Your task to perform on an android device: Open Wikipedia Image 0: 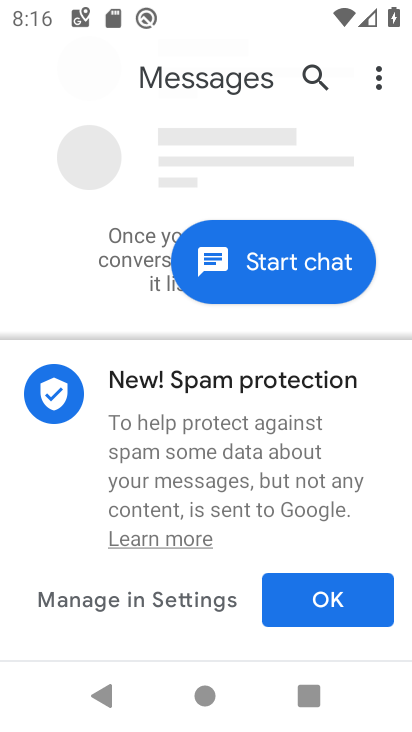
Step 0: press back button
Your task to perform on an android device: Open Wikipedia Image 1: 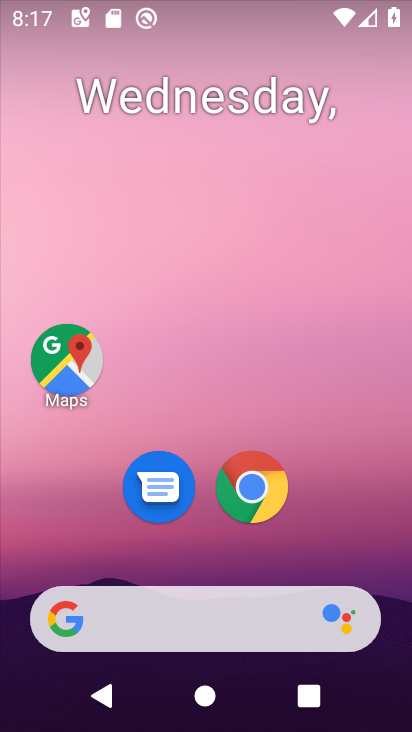
Step 1: click (253, 488)
Your task to perform on an android device: Open Wikipedia Image 2: 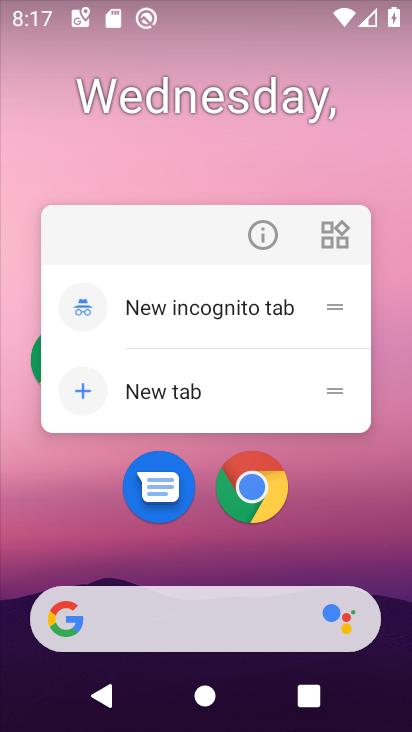
Step 2: click (253, 488)
Your task to perform on an android device: Open Wikipedia Image 3: 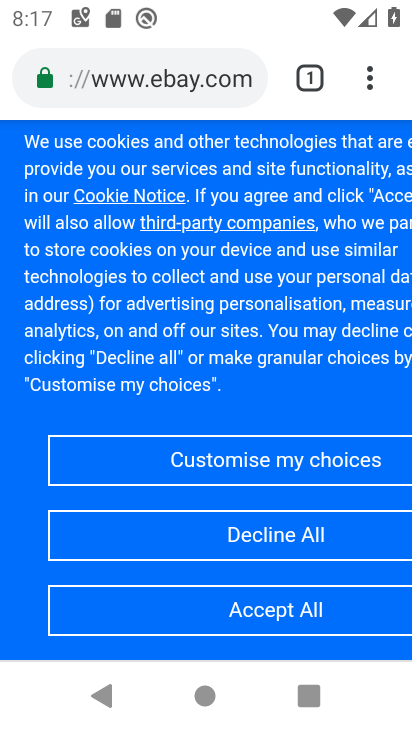
Step 3: click (171, 75)
Your task to perform on an android device: Open Wikipedia Image 4: 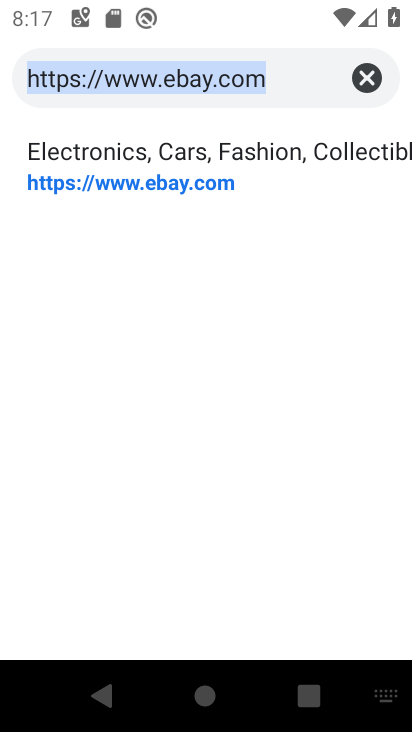
Step 4: click (372, 81)
Your task to perform on an android device: Open Wikipedia Image 5: 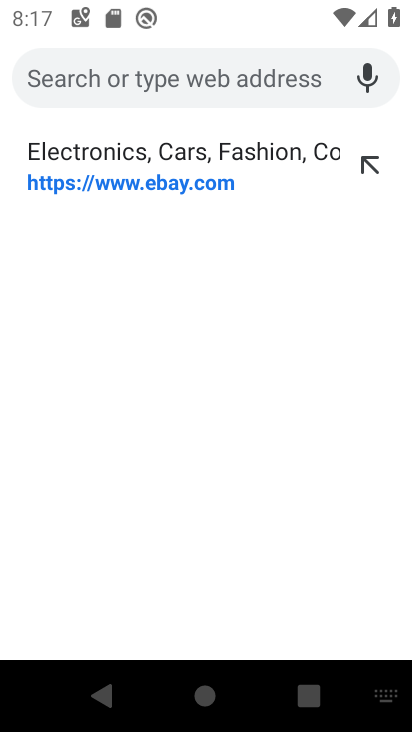
Step 5: type "Wikipedia"
Your task to perform on an android device: Open Wikipedia Image 6: 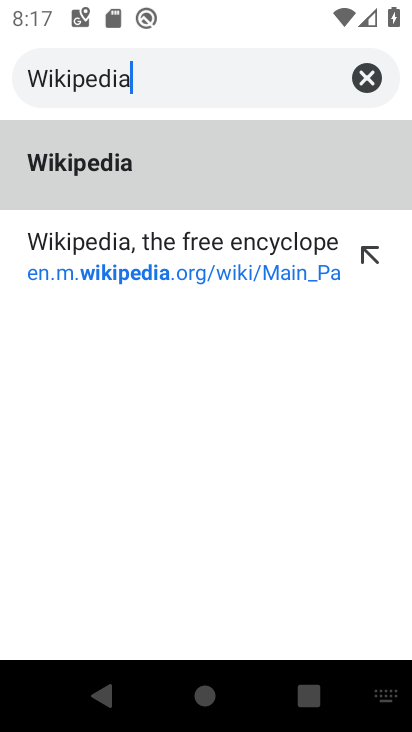
Step 6: type ""
Your task to perform on an android device: Open Wikipedia Image 7: 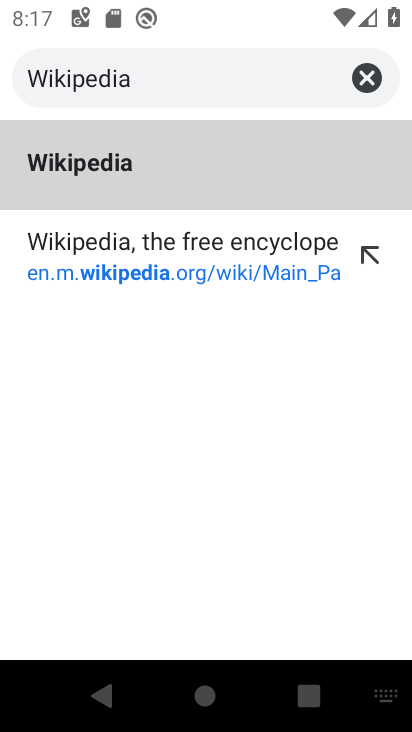
Step 7: click (114, 169)
Your task to perform on an android device: Open Wikipedia Image 8: 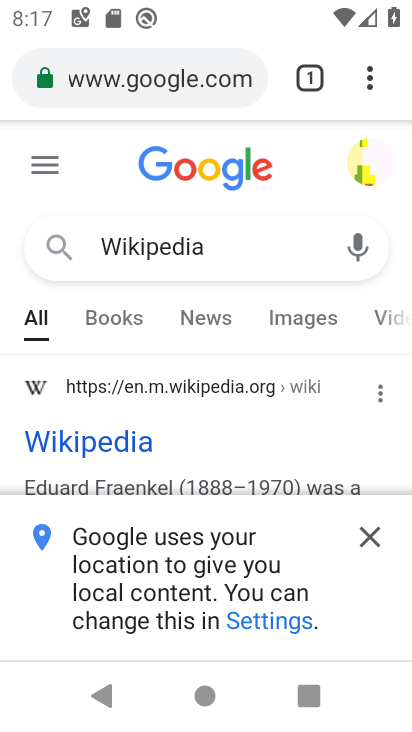
Step 8: click (367, 534)
Your task to perform on an android device: Open Wikipedia Image 9: 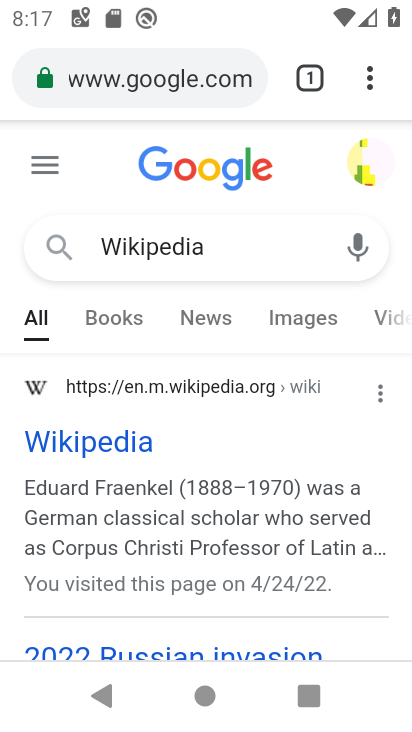
Step 9: click (76, 450)
Your task to perform on an android device: Open Wikipedia Image 10: 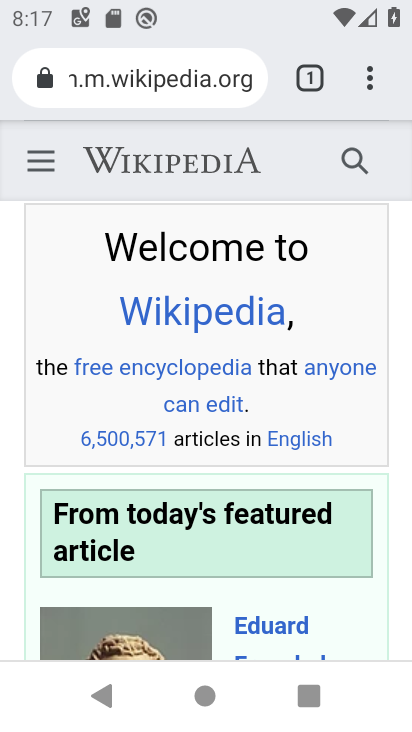
Step 10: task complete